Your task to perform on an android device: Go to Yahoo.com Image 0: 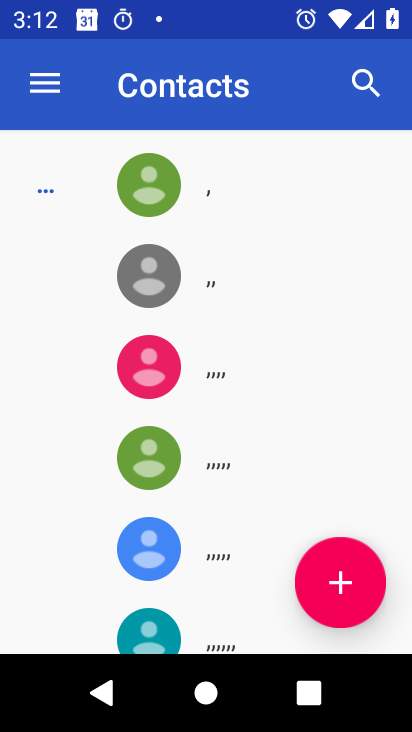
Step 0: press home button
Your task to perform on an android device: Go to Yahoo.com Image 1: 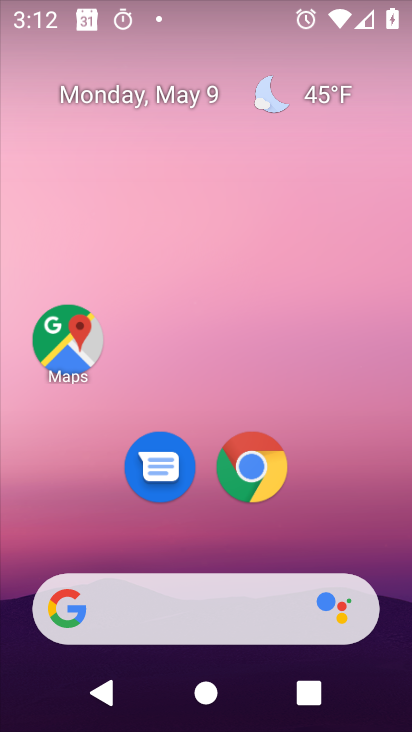
Step 1: click (252, 470)
Your task to perform on an android device: Go to Yahoo.com Image 2: 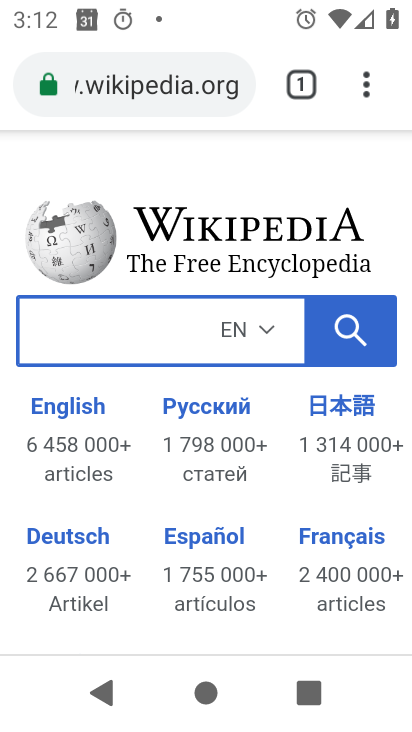
Step 2: click (182, 91)
Your task to perform on an android device: Go to Yahoo.com Image 3: 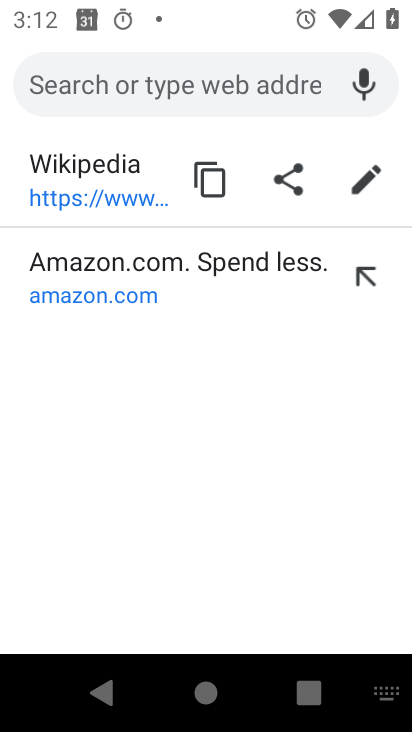
Step 3: type "yahoo.com"
Your task to perform on an android device: Go to Yahoo.com Image 4: 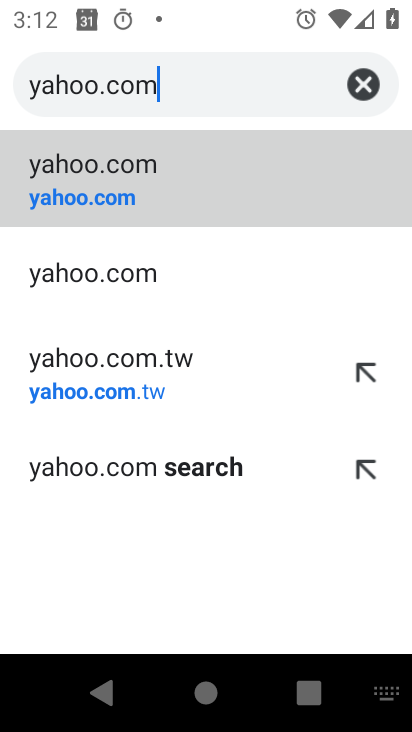
Step 4: click (83, 196)
Your task to perform on an android device: Go to Yahoo.com Image 5: 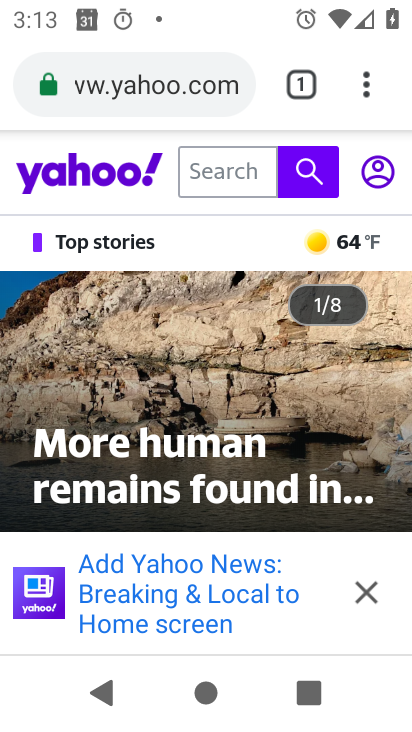
Step 5: task complete